Your task to perform on an android device: choose inbox layout in the gmail app Image 0: 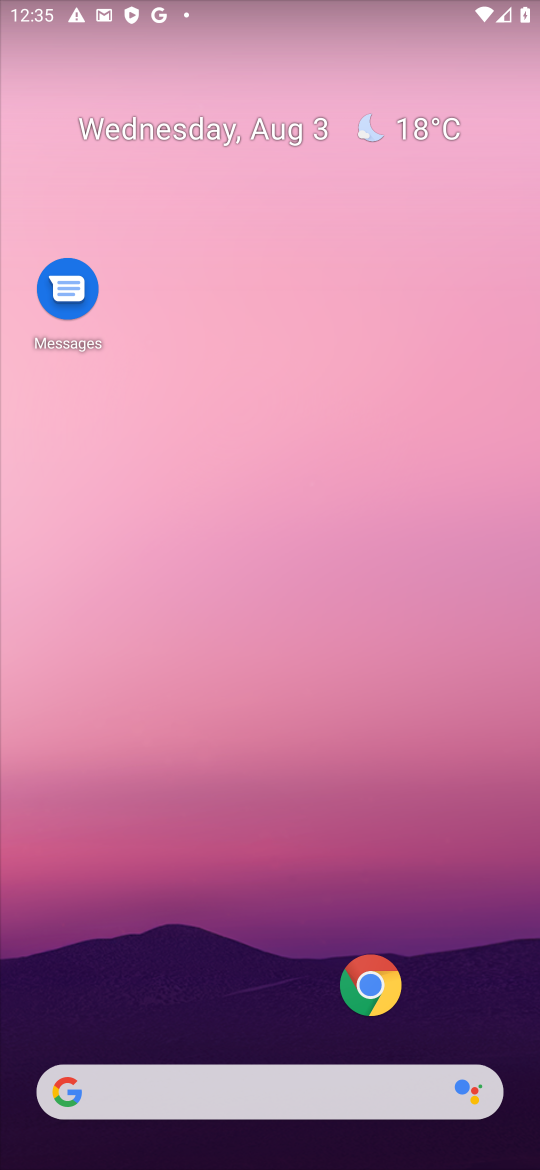
Step 0: drag from (271, 1043) to (183, 220)
Your task to perform on an android device: choose inbox layout in the gmail app Image 1: 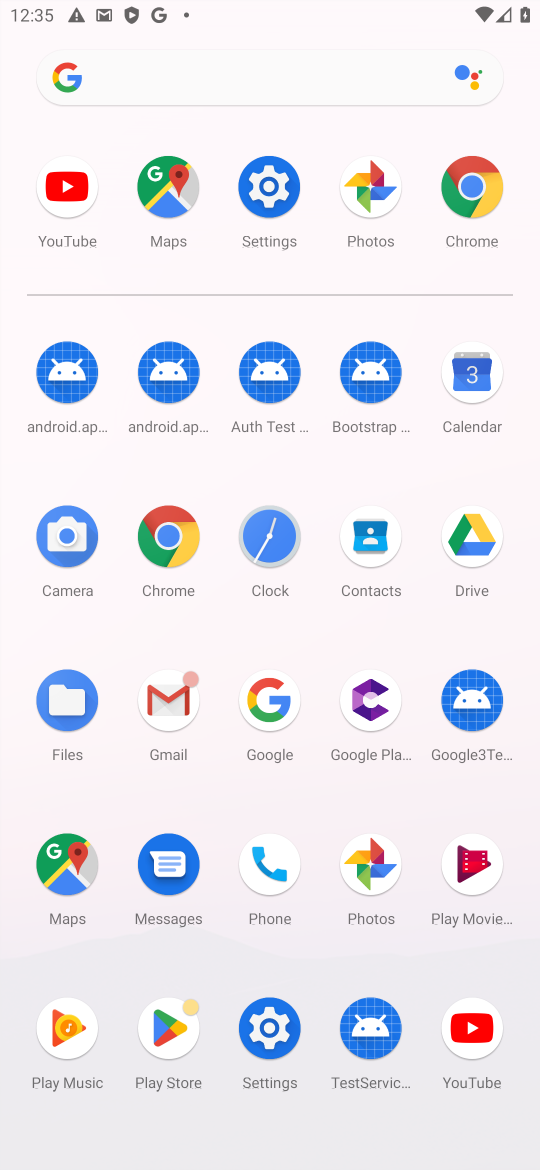
Step 1: click (171, 737)
Your task to perform on an android device: choose inbox layout in the gmail app Image 2: 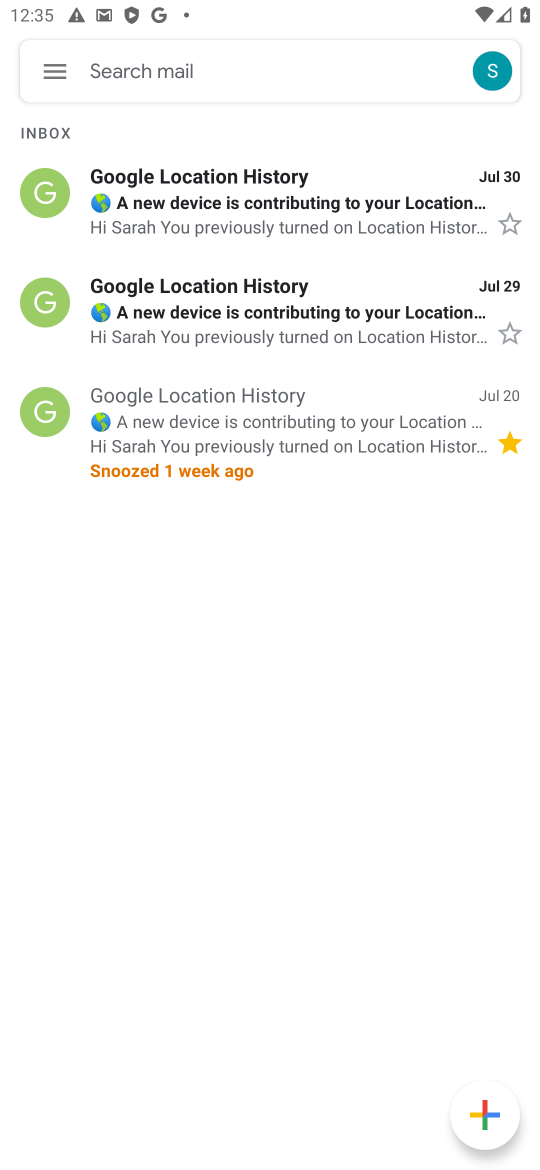
Step 2: click (67, 88)
Your task to perform on an android device: choose inbox layout in the gmail app Image 3: 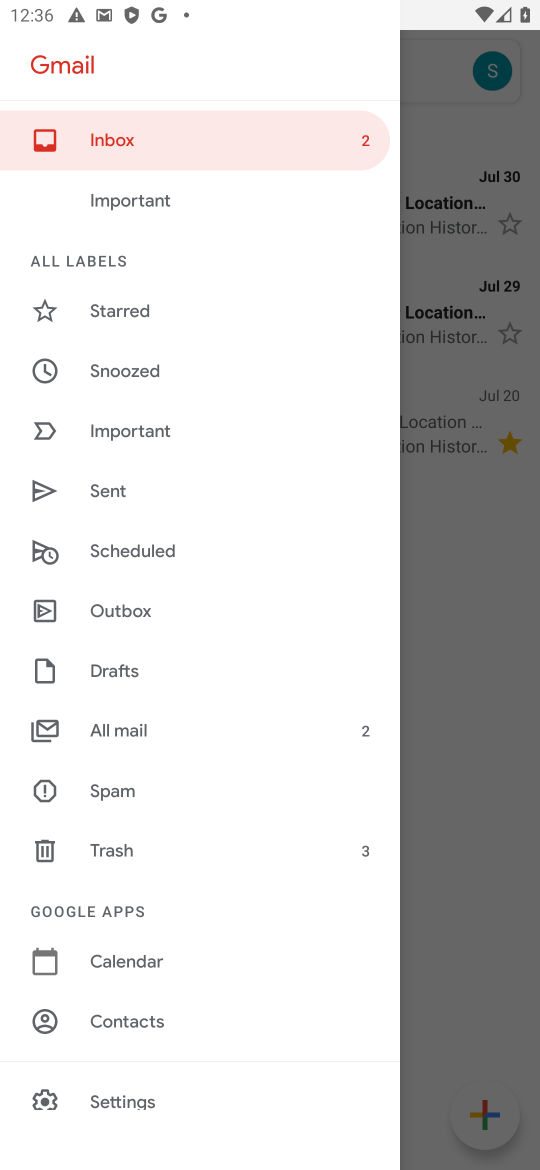
Step 3: task complete